Your task to perform on an android device: turn off improve location accuracy Image 0: 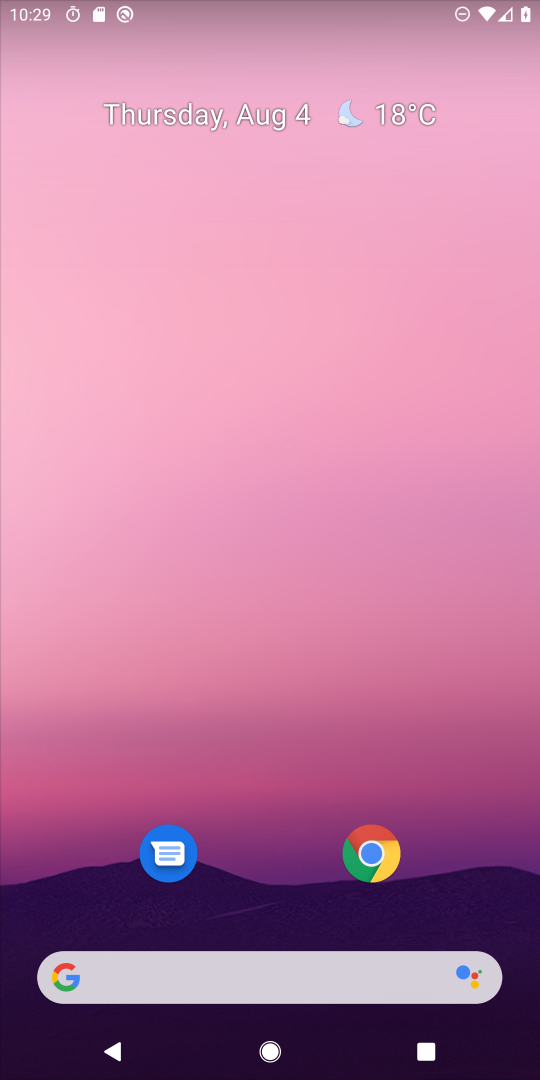
Step 0: drag from (245, 858) to (308, 197)
Your task to perform on an android device: turn off improve location accuracy Image 1: 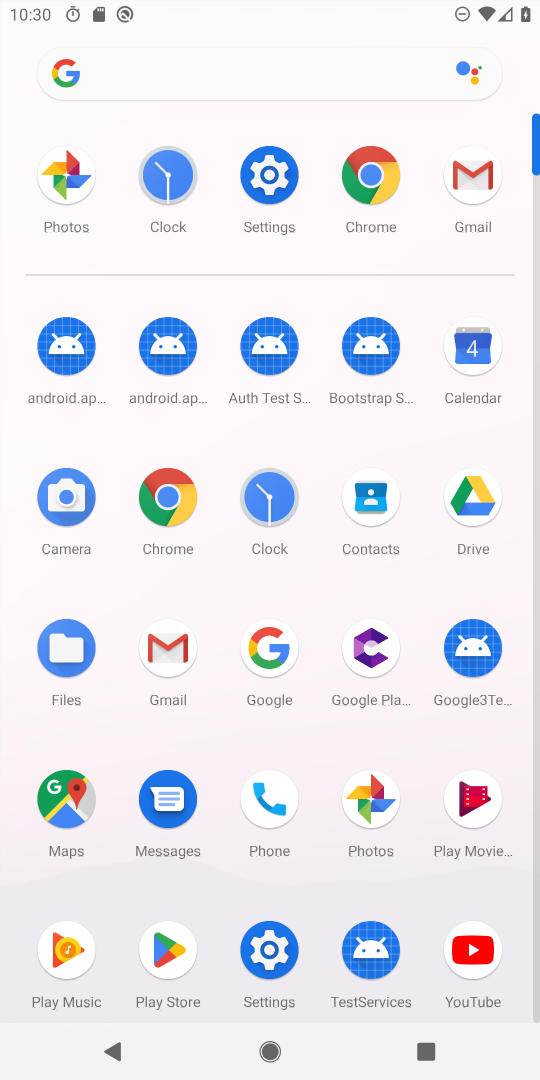
Step 1: click (257, 933)
Your task to perform on an android device: turn off improve location accuracy Image 2: 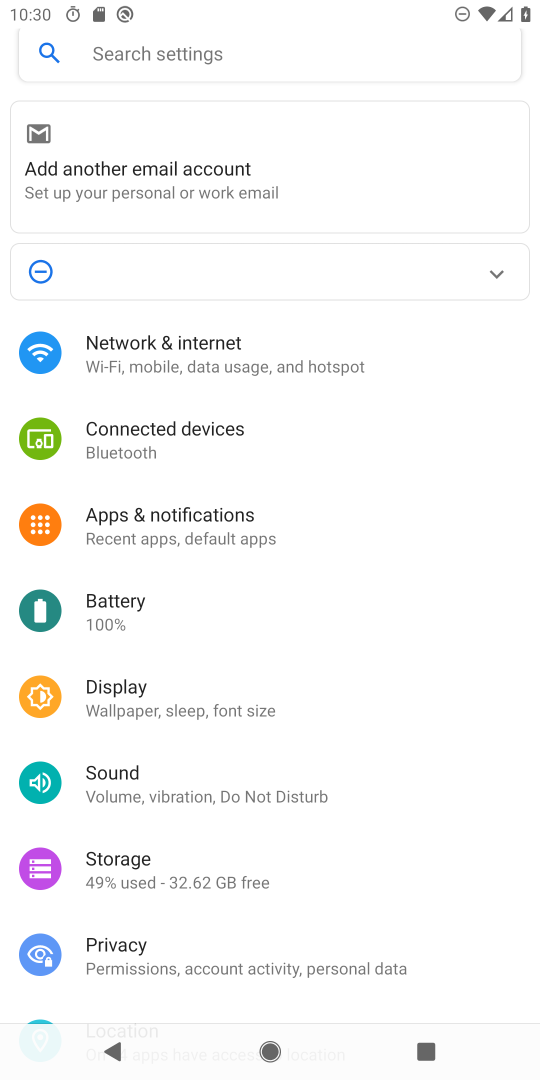
Step 2: drag from (172, 906) to (231, 484)
Your task to perform on an android device: turn off improve location accuracy Image 3: 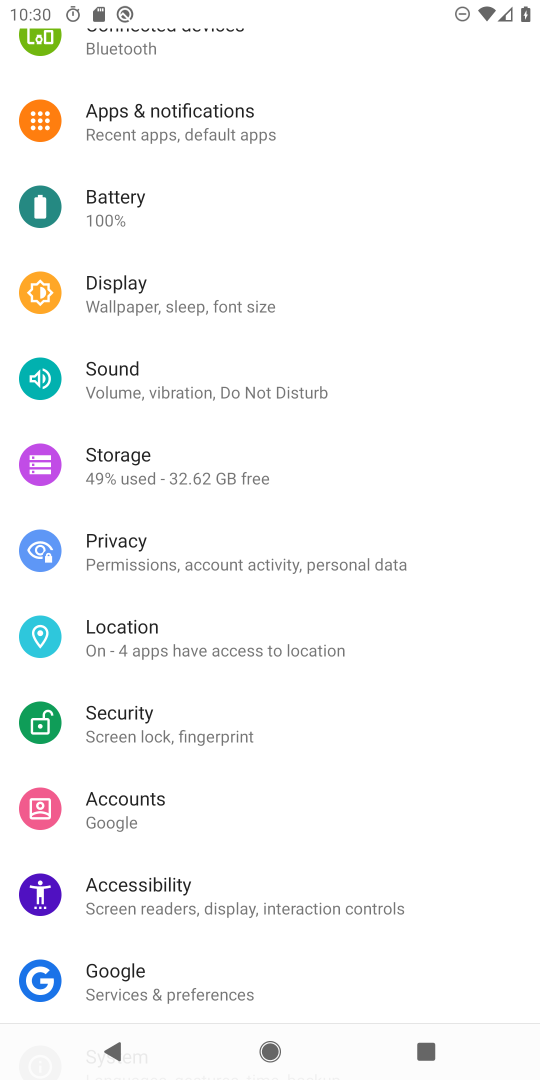
Step 3: click (177, 632)
Your task to perform on an android device: turn off improve location accuracy Image 4: 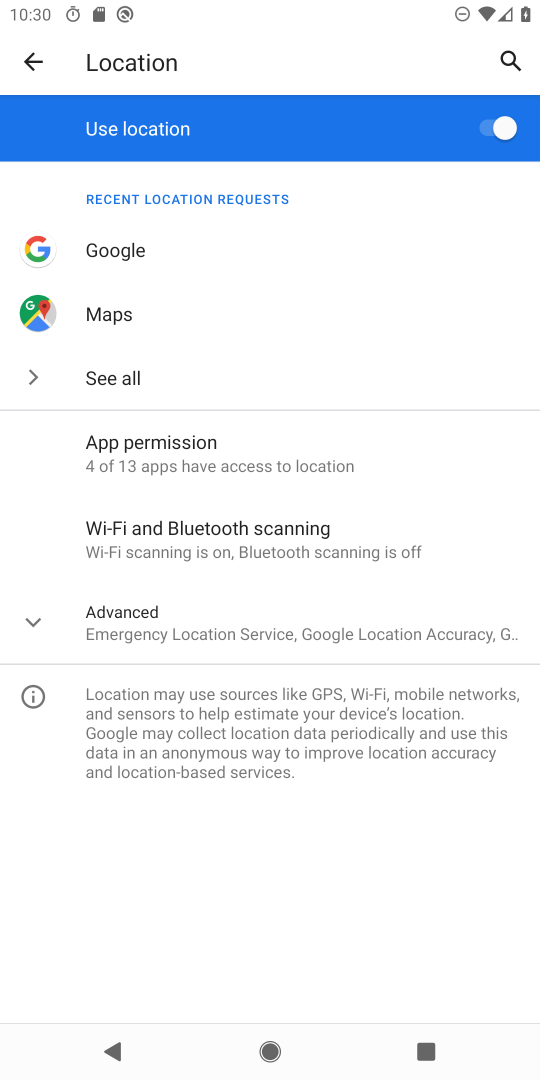
Step 4: click (147, 617)
Your task to perform on an android device: turn off improve location accuracy Image 5: 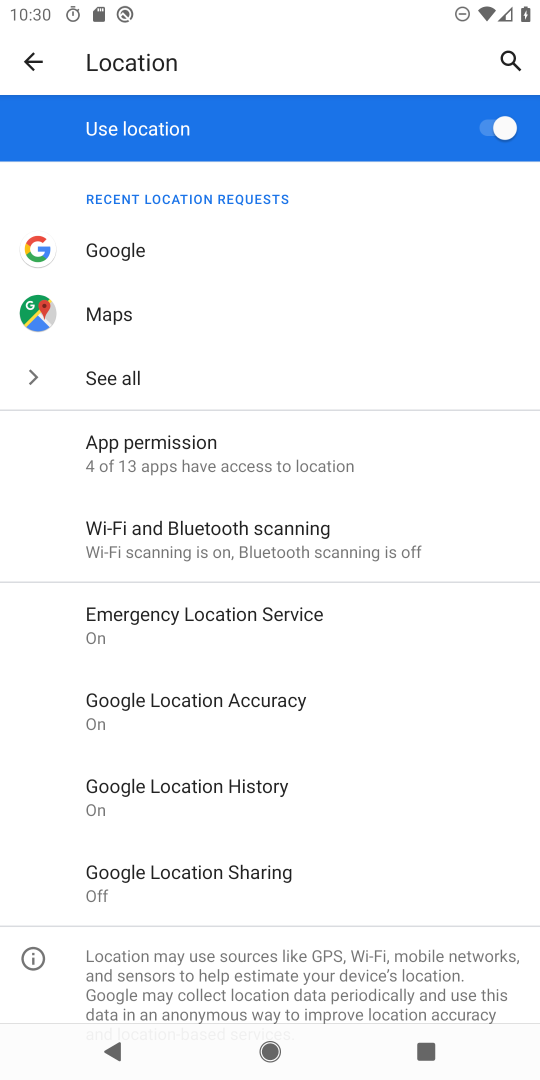
Step 5: click (233, 700)
Your task to perform on an android device: turn off improve location accuracy Image 6: 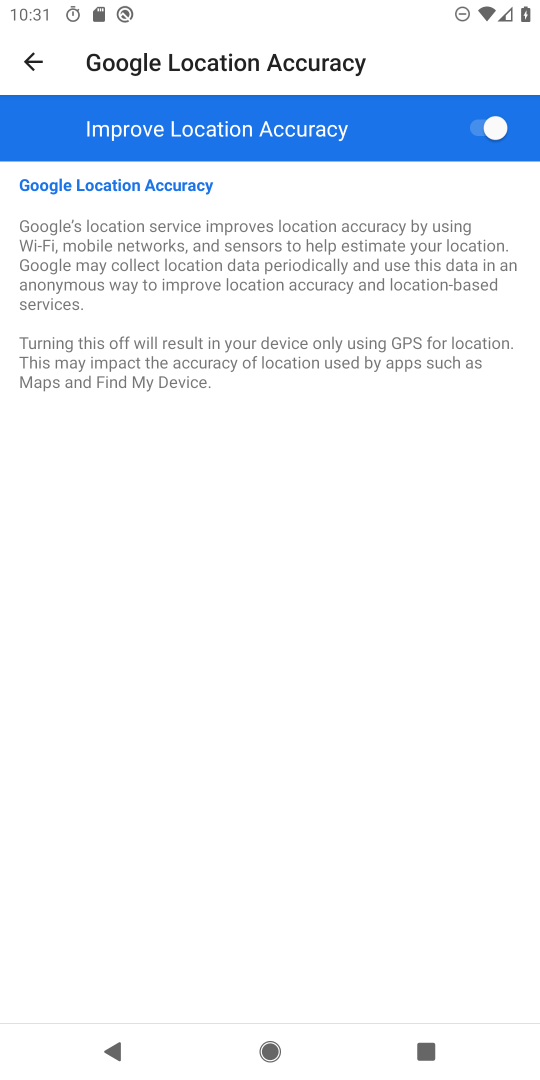
Step 6: click (455, 112)
Your task to perform on an android device: turn off improve location accuracy Image 7: 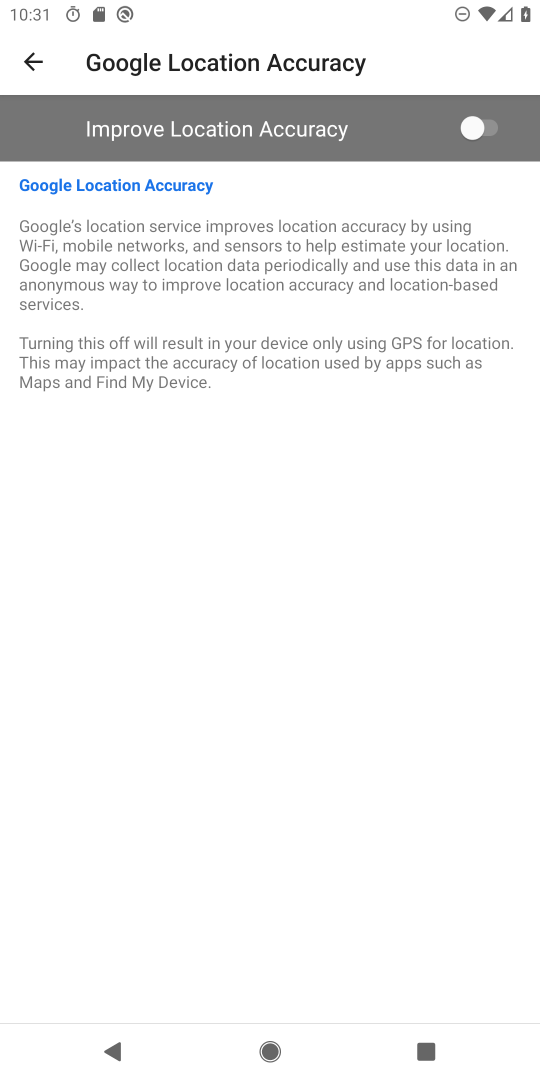
Step 7: task complete